Your task to perform on an android device: Open privacy settings Image 0: 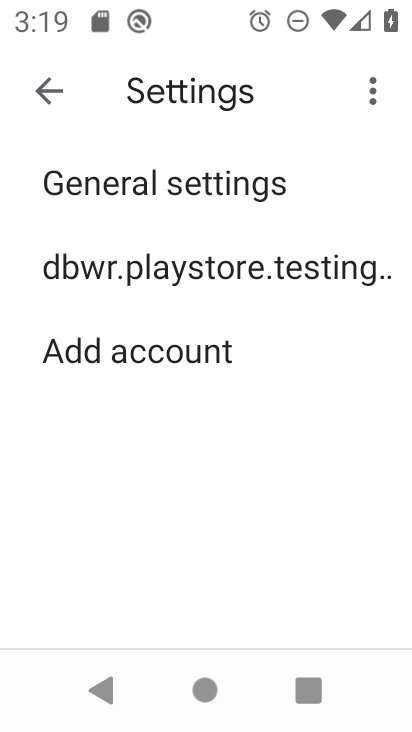
Step 0: press home button
Your task to perform on an android device: Open privacy settings Image 1: 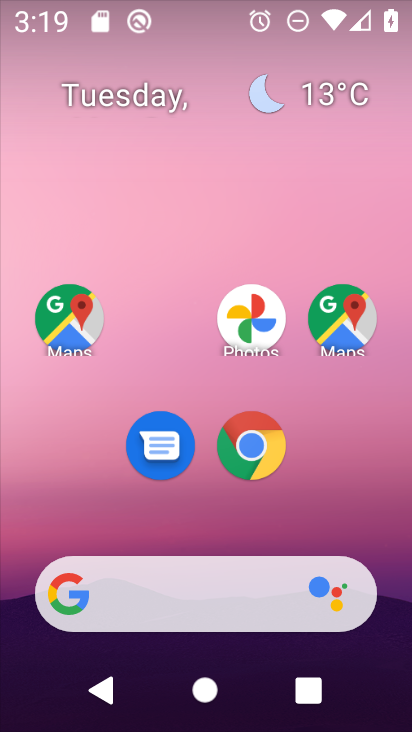
Step 1: drag from (387, 533) to (377, 192)
Your task to perform on an android device: Open privacy settings Image 2: 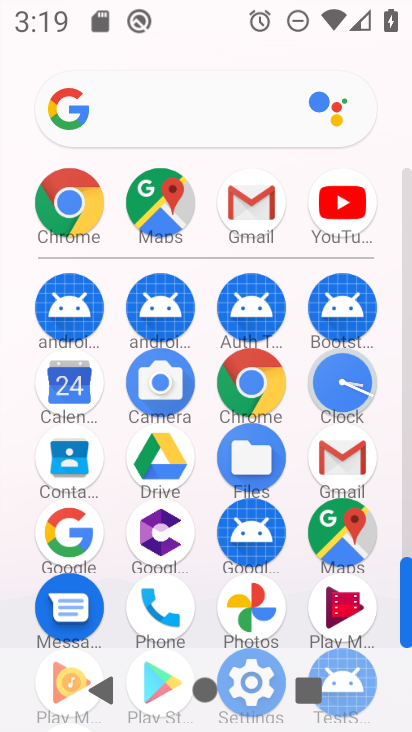
Step 2: drag from (381, 613) to (386, 422)
Your task to perform on an android device: Open privacy settings Image 3: 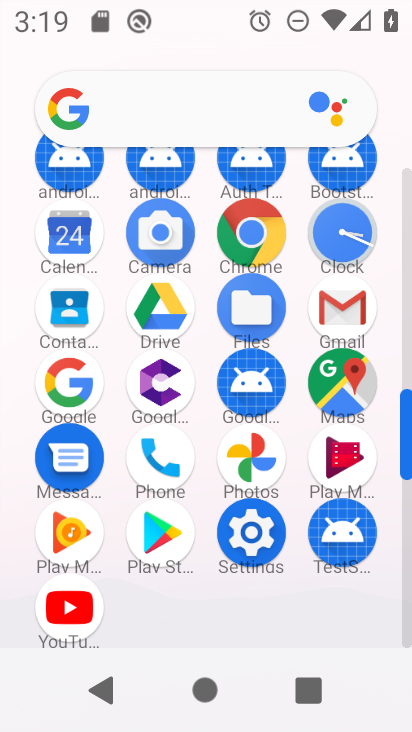
Step 3: click (253, 550)
Your task to perform on an android device: Open privacy settings Image 4: 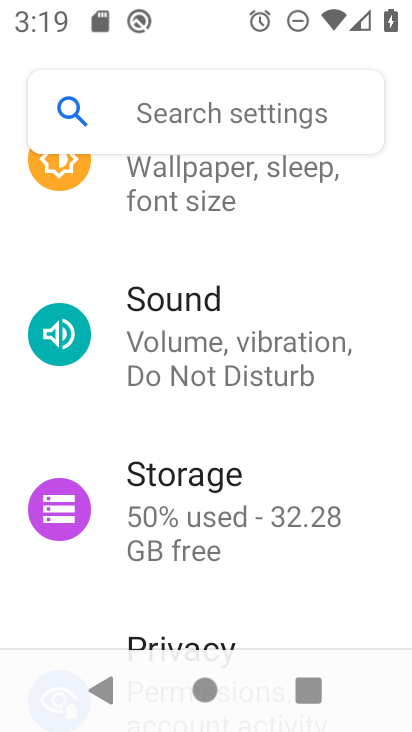
Step 4: drag from (356, 323) to (362, 425)
Your task to perform on an android device: Open privacy settings Image 5: 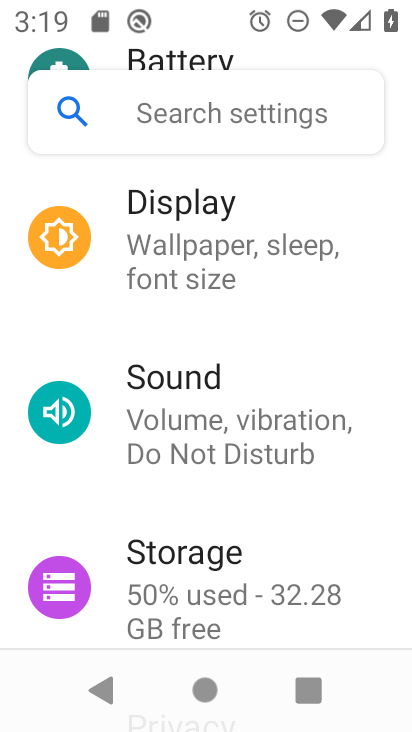
Step 5: drag from (374, 329) to (377, 456)
Your task to perform on an android device: Open privacy settings Image 6: 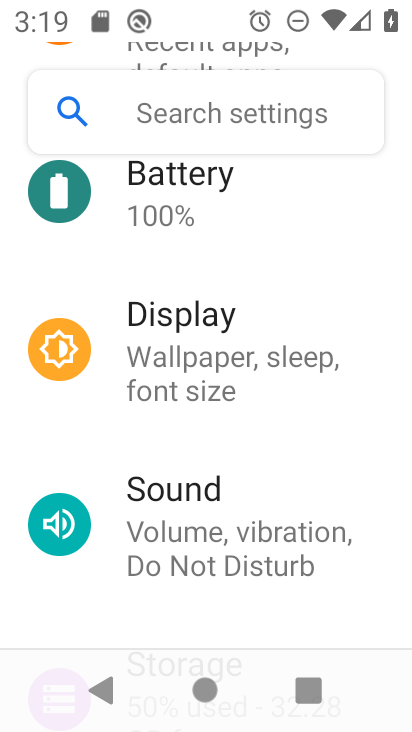
Step 6: drag from (365, 337) to (369, 413)
Your task to perform on an android device: Open privacy settings Image 7: 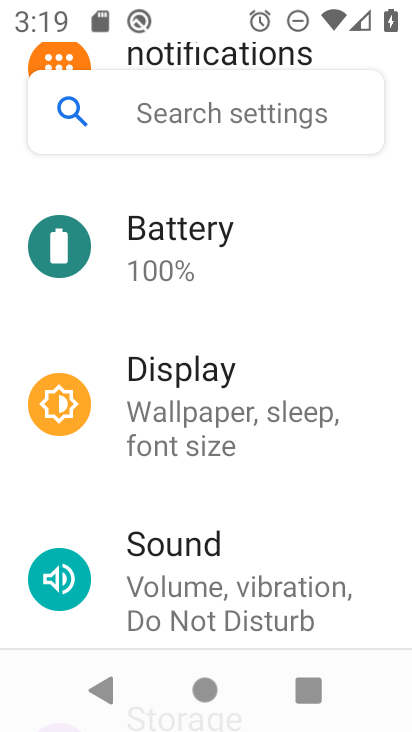
Step 7: drag from (378, 284) to (378, 369)
Your task to perform on an android device: Open privacy settings Image 8: 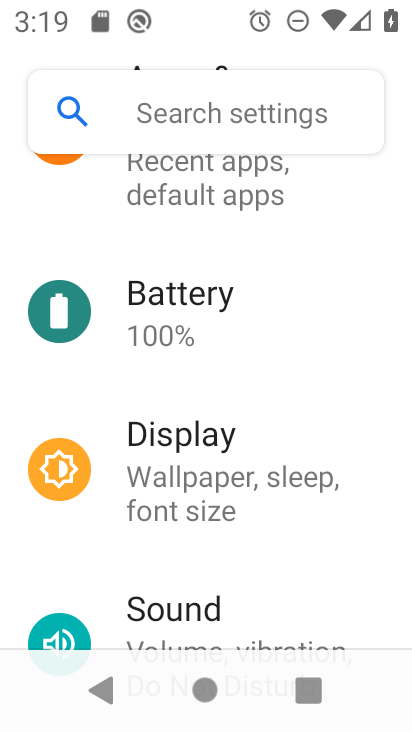
Step 8: drag from (375, 280) to (370, 366)
Your task to perform on an android device: Open privacy settings Image 9: 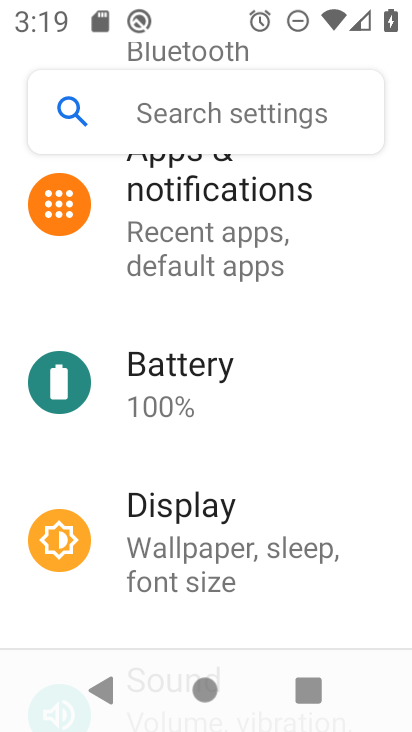
Step 9: drag from (364, 249) to (367, 323)
Your task to perform on an android device: Open privacy settings Image 10: 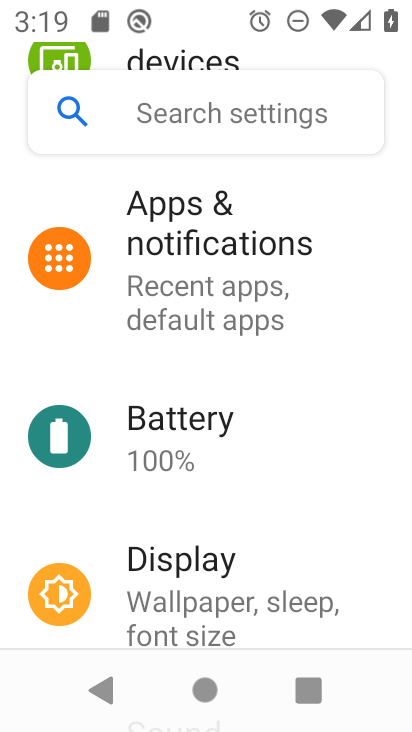
Step 10: drag from (349, 519) to (364, 419)
Your task to perform on an android device: Open privacy settings Image 11: 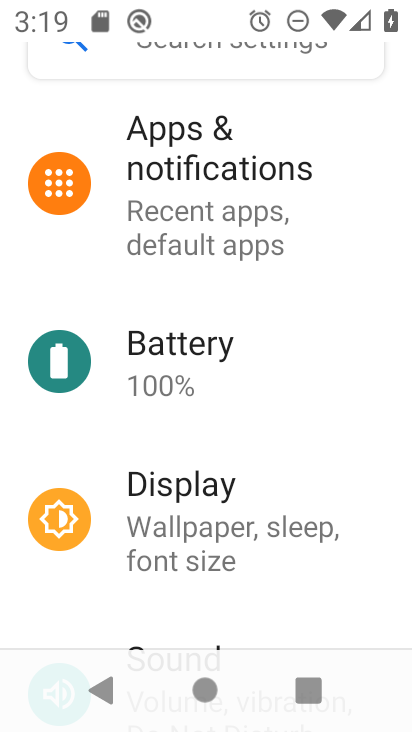
Step 11: drag from (376, 539) to (379, 446)
Your task to perform on an android device: Open privacy settings Image 12: 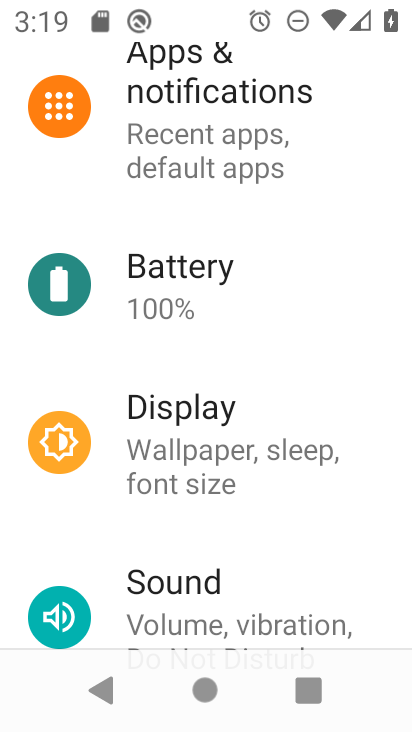
Step 12: drag from (369, 579) to (374, 478)
Your task to perform on an android device: Open privacy settings Image 13: 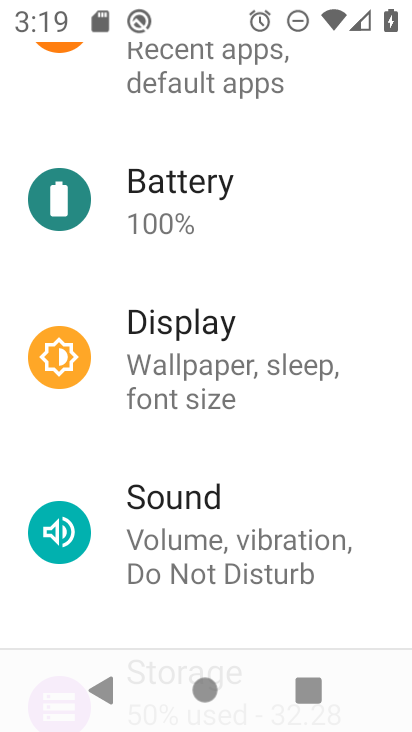
Step 13: drag from (363, 604) to (364, 490)
Your task to perform on an android device: Open privacy settings Image 14: 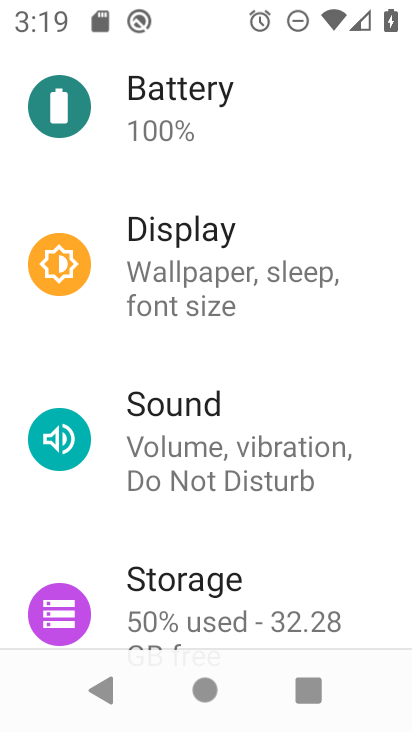
Step 14: drag from (357, 613) to (368, 486)
Your task to perform on an android device: Open privacy settings Image 15: 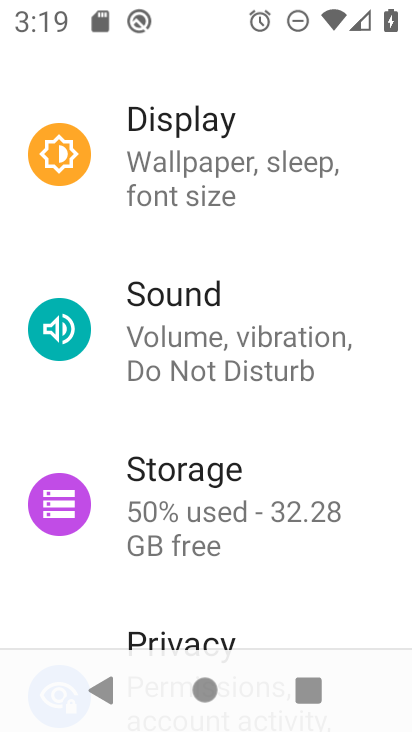
Step 15: drag from (362, 586) to (362, 497)
Your task to perform on an android device: Open privacy settings Image 16: 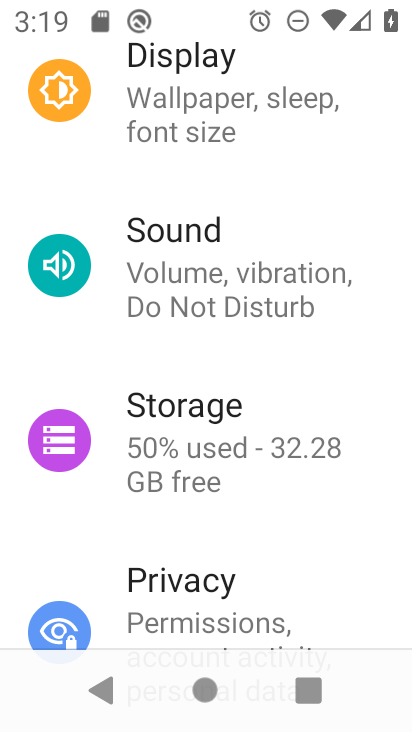
Step 16: drag from (353, 609) to (355, 497)
Your task to perform on an android device: Open privacy settings Image 17: 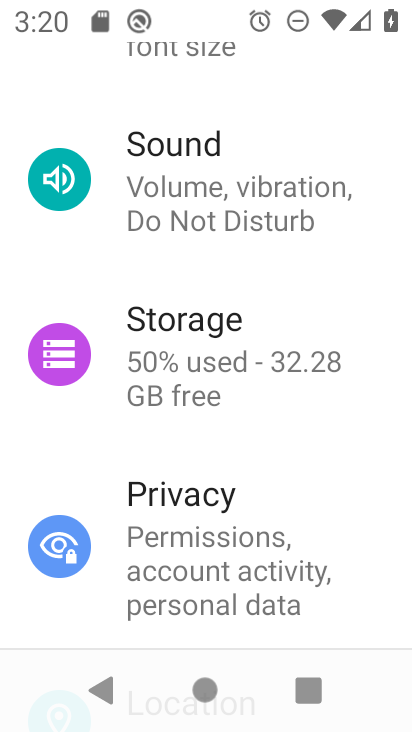
Step 17: drag from (381, 621) to (383, 513)
Your task to perform on an android device: Open privacy settings Image 18: 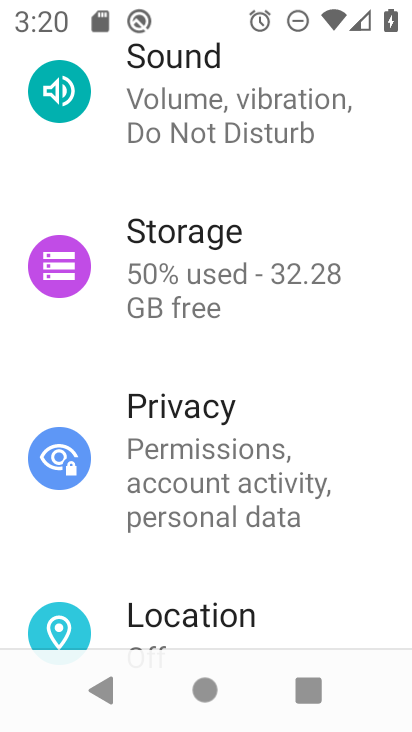
Step 18: drag from (372, 613) to (367, 489)
Your task to perform on an android device: Open privacy settings Image 19: 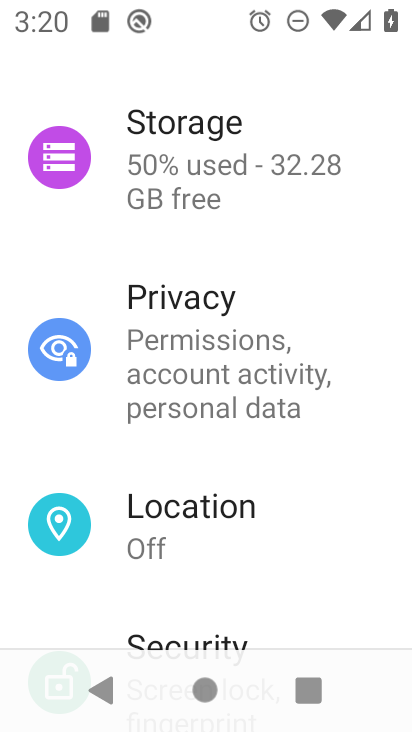
Step 19: drag from (343, 603) to (352, 455)
Your task to perform on an android device: Open privacy settings Image 20: 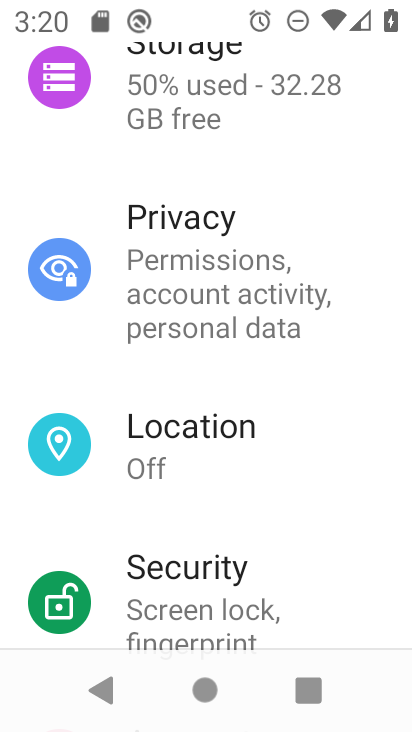
Step 20: drag from (324, 598) to (329, 515)
Your task to perform on an android device: Open privacy settings Image 21: 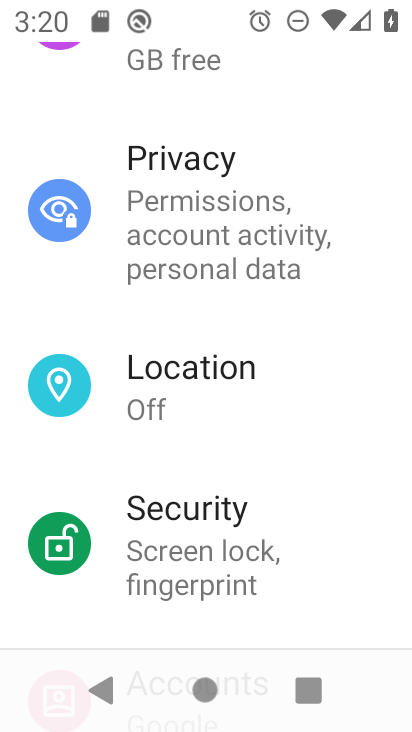
Step 21: click (230, 191)
Your task to perform on an android device: Open privacy settings Image 22: 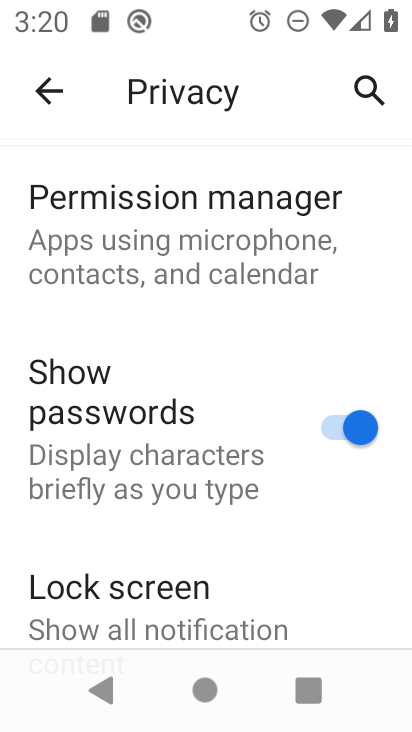
Step 22: task complete